Your task to perform on an android device: check storage Image 0: 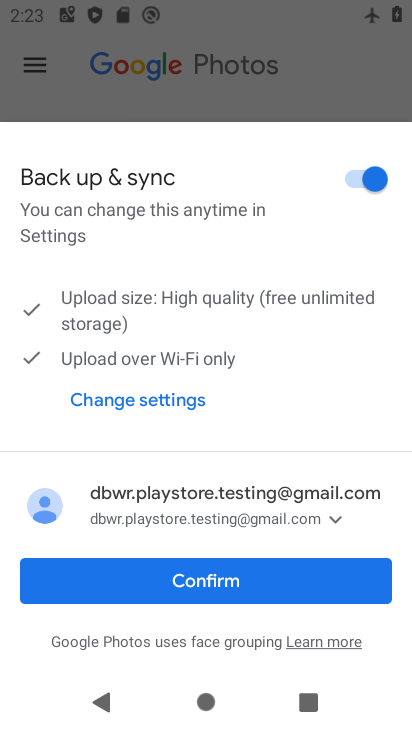
Step 0: press home button
Your task to perform on an android device: check storage Image 1: 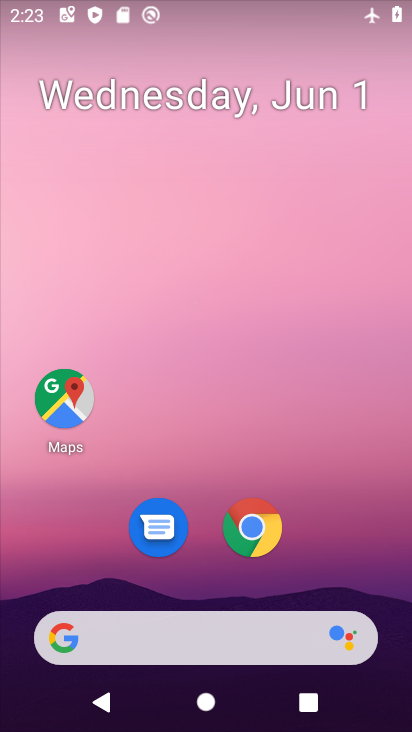
Step 1: drag from (314, 581) to (280, 63)
Your task to perform on an android device: check storage Image 2: 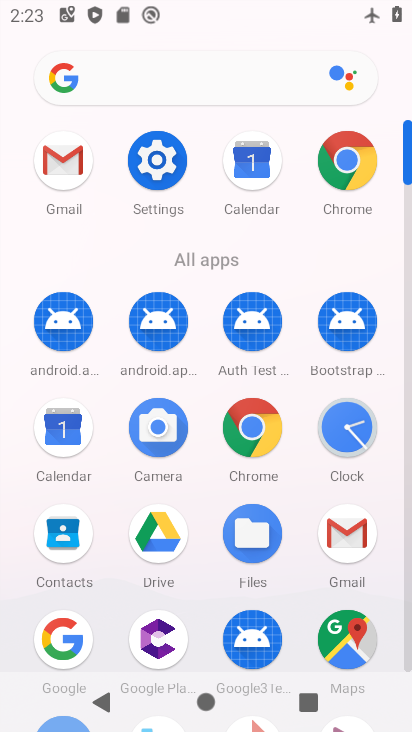
Step 2: click (157, 160)
Your task to perform on an android device: check storage Image 3: 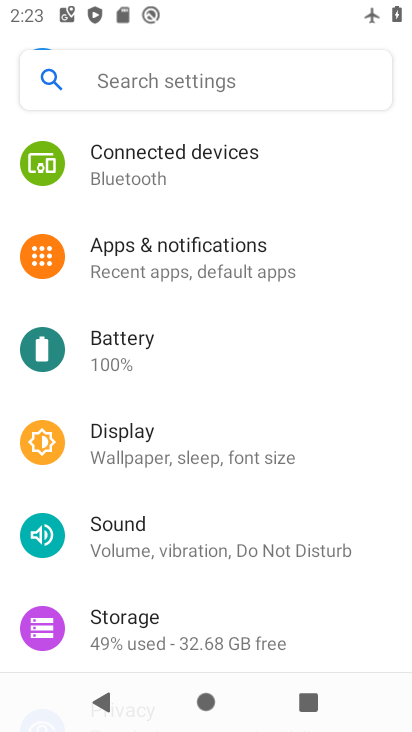
Step 3: drag from (183, 368) to (219, 255)
Your task to perform on an android device: check storage Image 4: 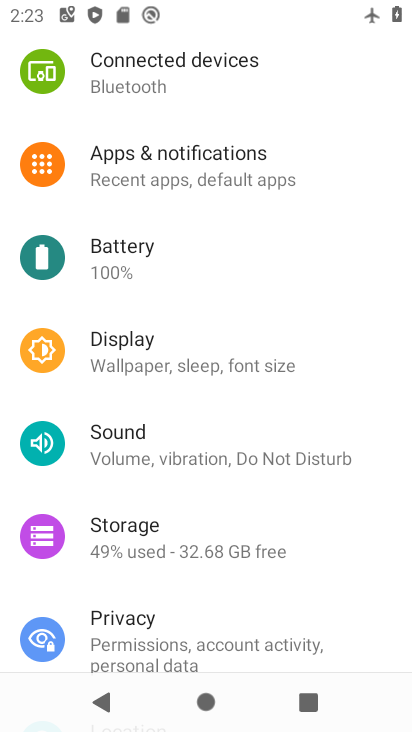
Step 4: drag from (170, 419) to (200, 308)
Your task to perform on an android device: check storage Image 5: 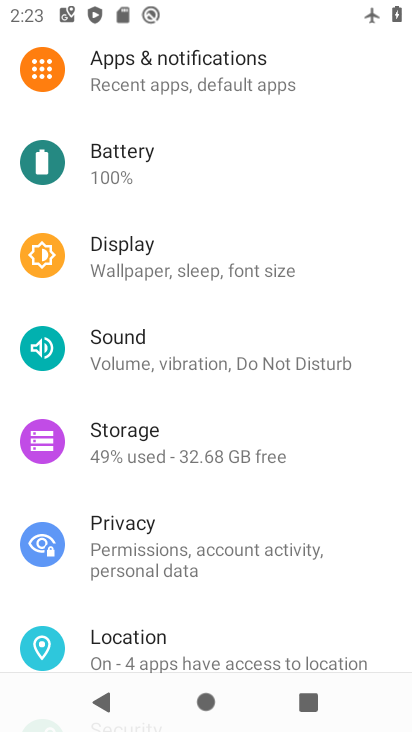
Step 5: click (159, 443)
Your task to perform on an android device: check storage Image 6: 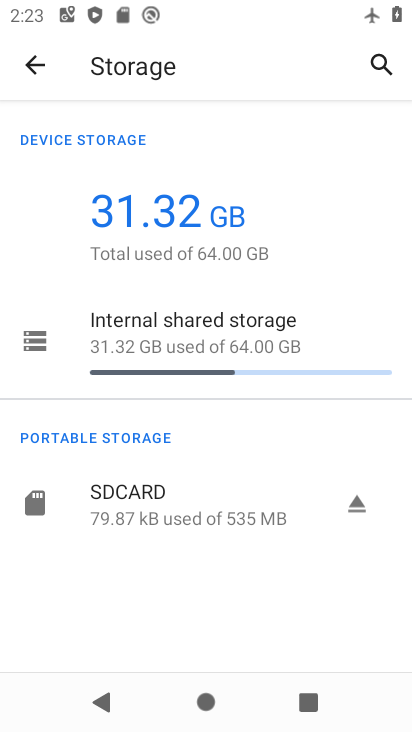
Step 6: task complete